Your task to perform on an android device: turn on sleep mode Image 0: 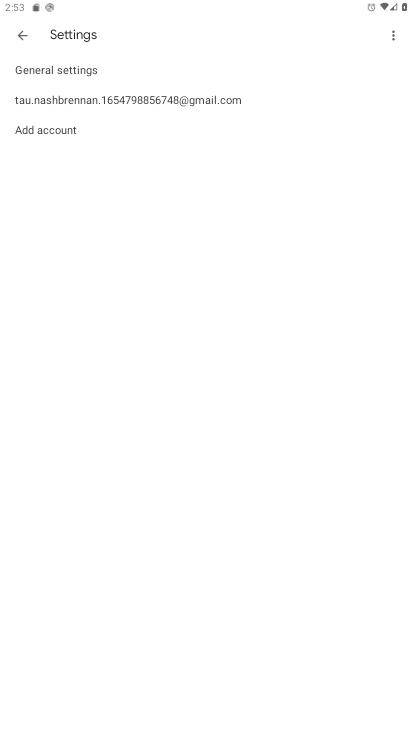
Step 0: press home button
Your task to perform on an android device: turn on sleep mode Image 1: 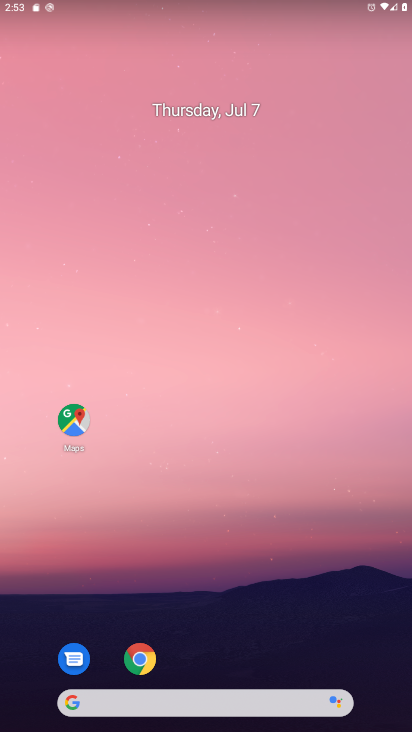
Step 1: drag from (176, 692) to (233, 197)
Your task to perform on an android device: turn on sleep mode Image 2: 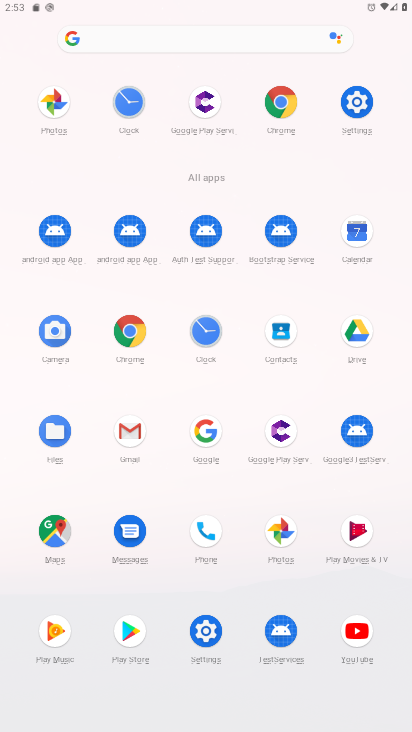
Step 2: click (390, 76)
Your task to perform on an android device: turn on sleep mode Image 3: 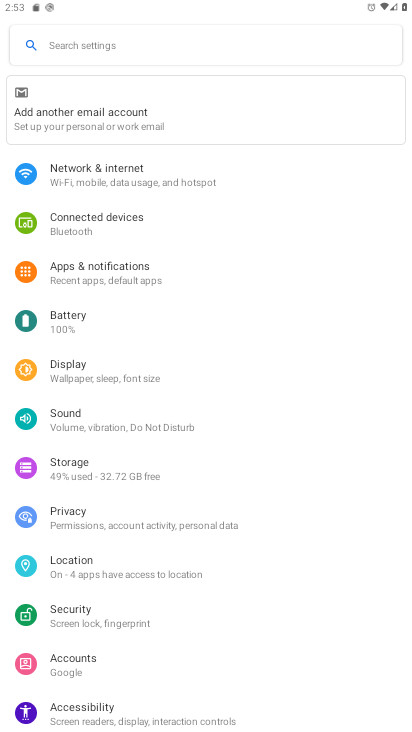
Step 3: click (93, 382)
Your task to perform on an android device: turn on sleep mode Image 4: 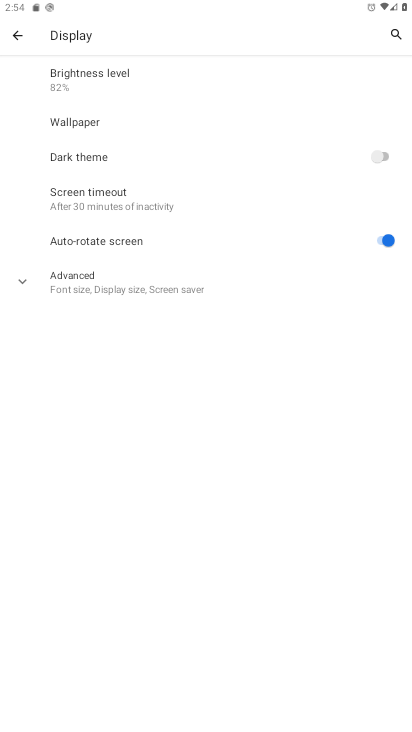
Step 4: click (211, 279)
Your task to perform on an android device: turn on sleep mode Image 5: 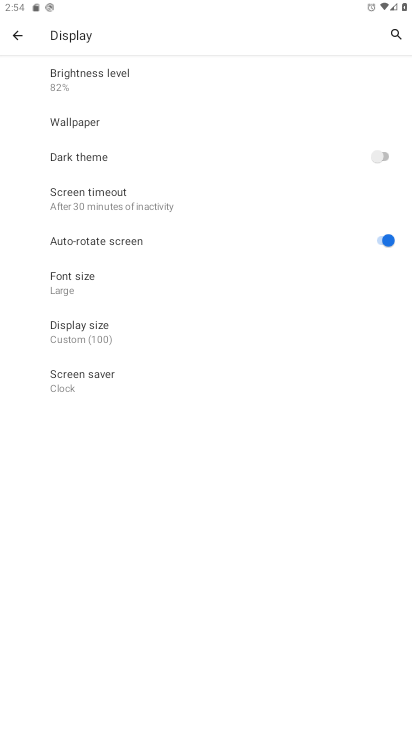
Step 5: task complete